Your task to perform on an android device: Show me popular games on the Play Store Image 0: 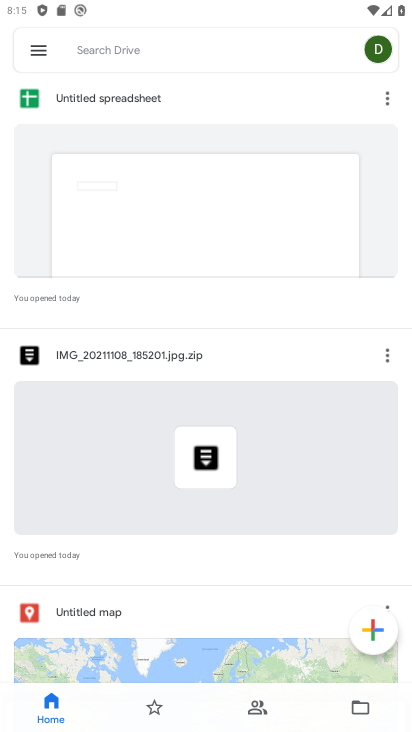
Step 0: press home button
Your task to perform on an android device: Show me popular games on the Play Store Image 1: 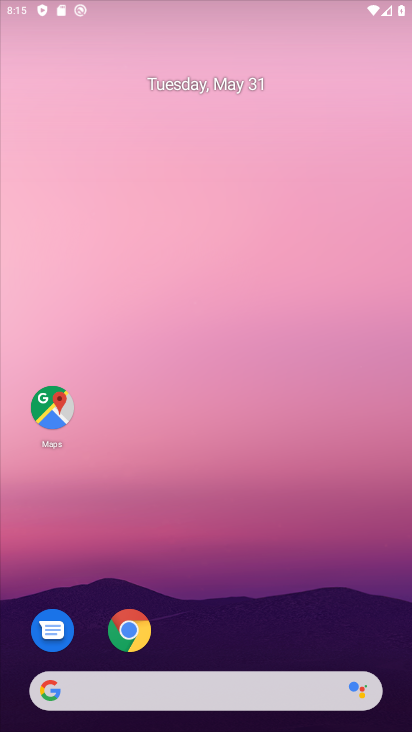
Step 1: drag from (312, 608) to (240, 147)
Your task to perform on an android device: Show me popular games on the Play Store Image 2: 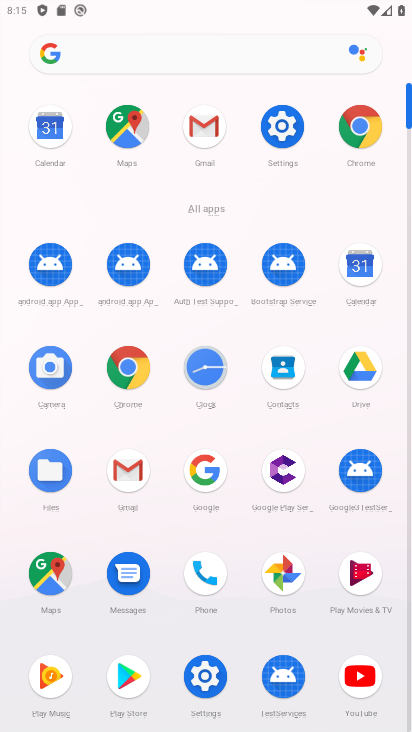
Step 2: click (124, 689)
Your task to perform on an android device: Show me popular games on the Play Store Image 3: 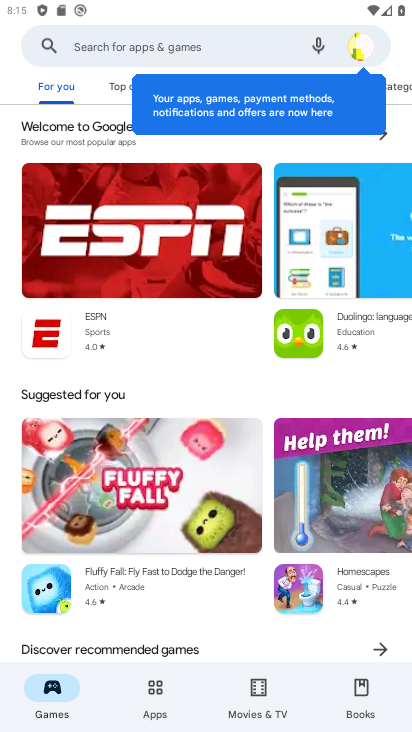
Step 3: drag from (173, 644) to (177, 205)
Your task to perform on an android device: Show me popular games on the Play Store Image 4: 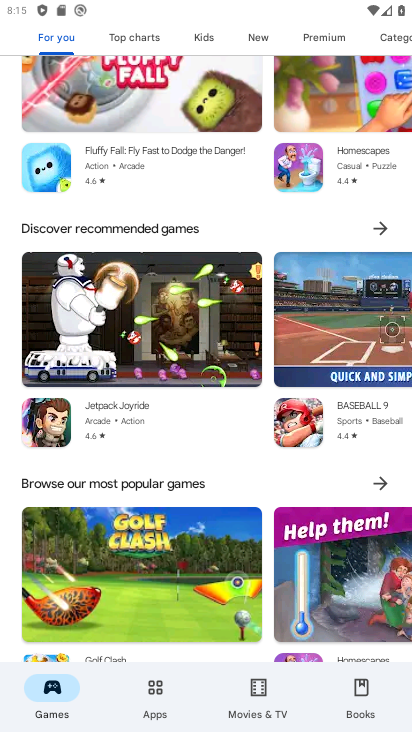
Step 4: click (377, 477)
Your task to perform on an android device: Show me popular games on the Play Store Image 5: 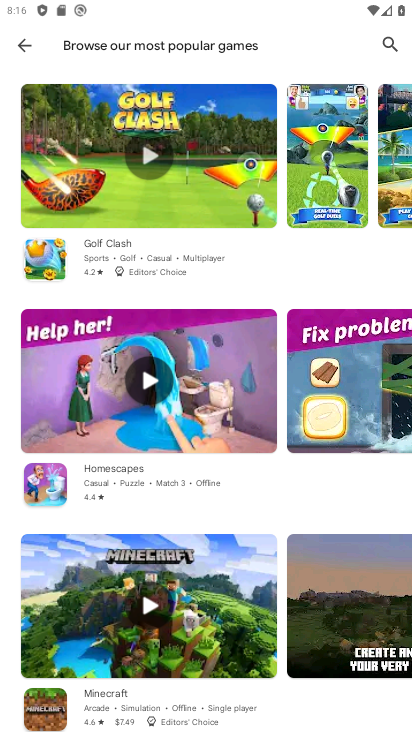
Step 5: task complete